Your task to perform on an android device: Go to eBay Image 0: 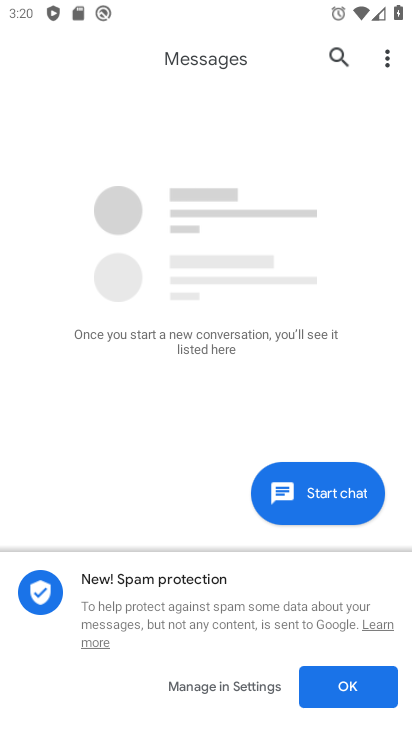
Step 0: press home button
Your task to perform on an android device: Go to eBay Image 1: 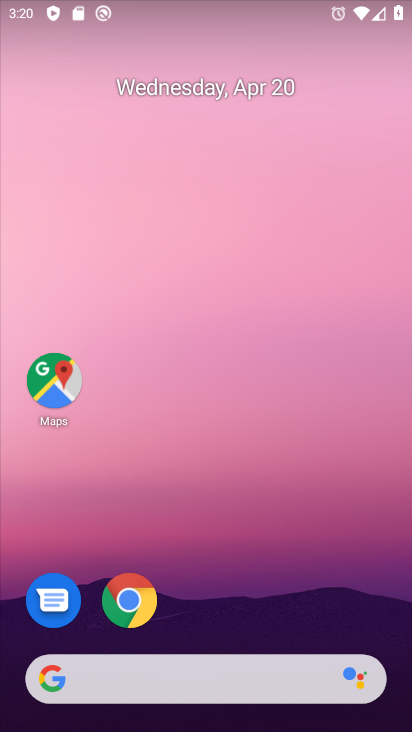
Step 1: drag from (218, 487) to (209, 199)
Your task to perform on an android device: Go to eBay Image 2: 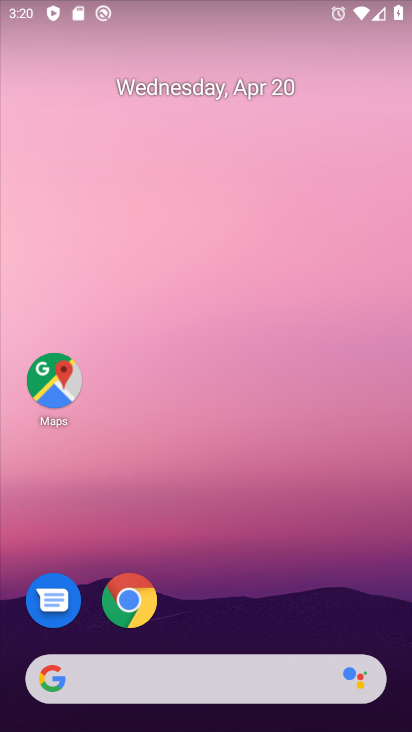
Step 2: drag from (266, 560) to (271, 154)
Your task to perform on an android device: Go to eBay Image 3: 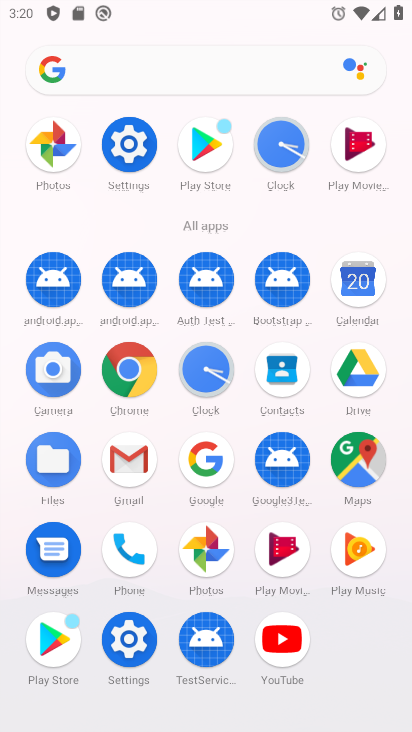
Step 3: click (127, 363)
Your task to perform on an android device: Go to eBay Image 4: 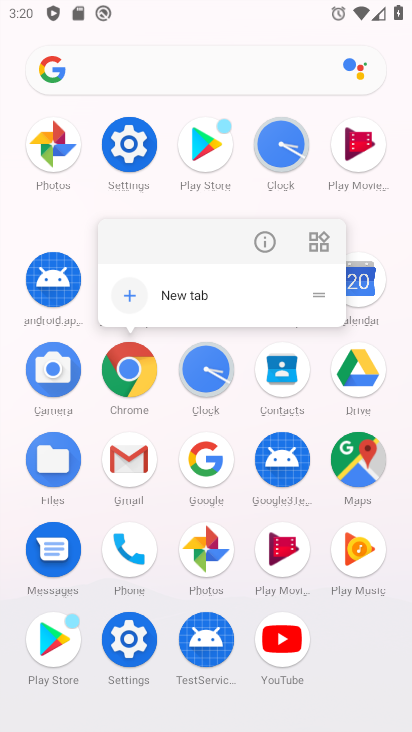
Step 4: click (128, 363)
Your task to perform on an android device: Go to eBay Image 5: 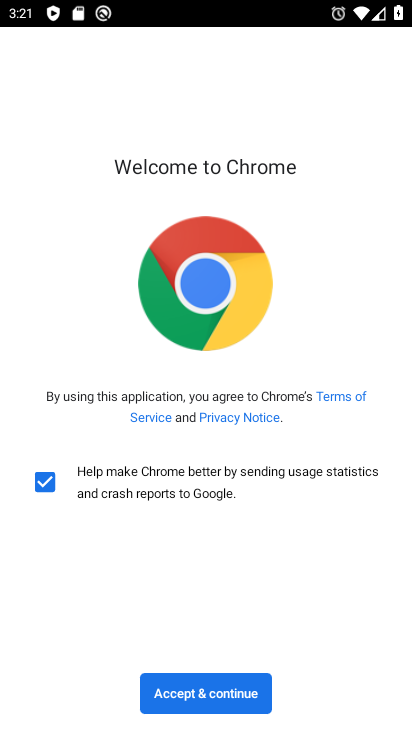
Step 5: click (205, 682)
Your task to perform on an android device: Go to eBay Image 6: 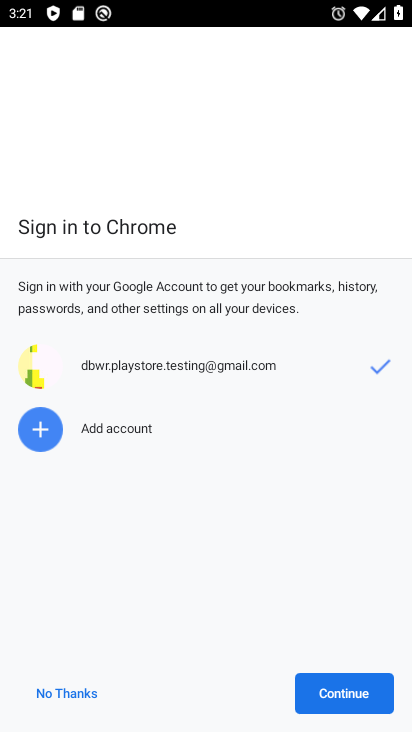
Step 6: click (205, 682)
Your task to perform on an android device: Go to eBay Image 7: 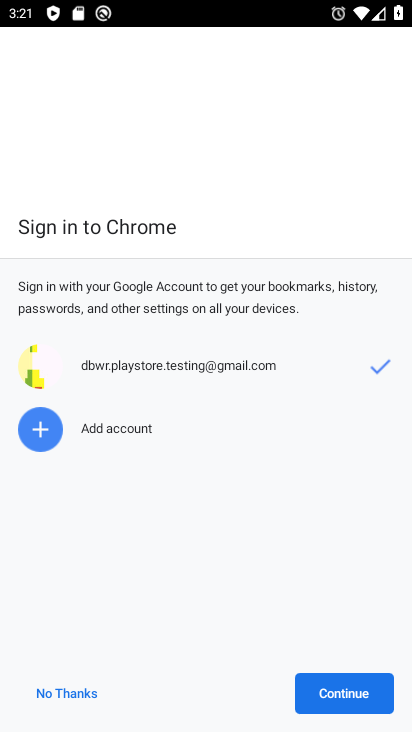
Step 7: click (336, 697)
Your task to perform on an android device: Go to eBay Image 8: 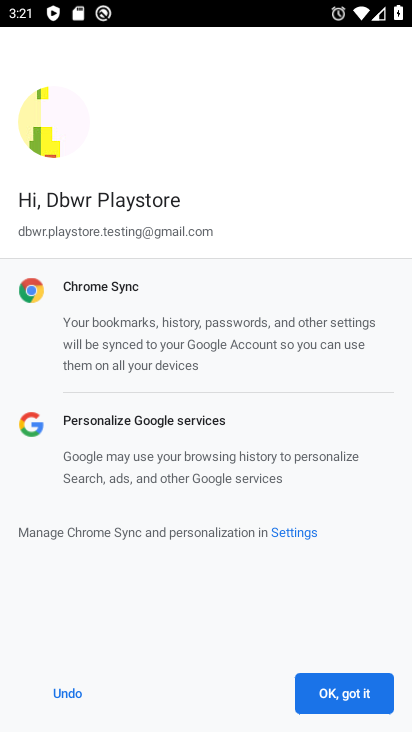
Step 8: click (336, 697)
Your task to perform on an android device: Go to eBay Image 9: 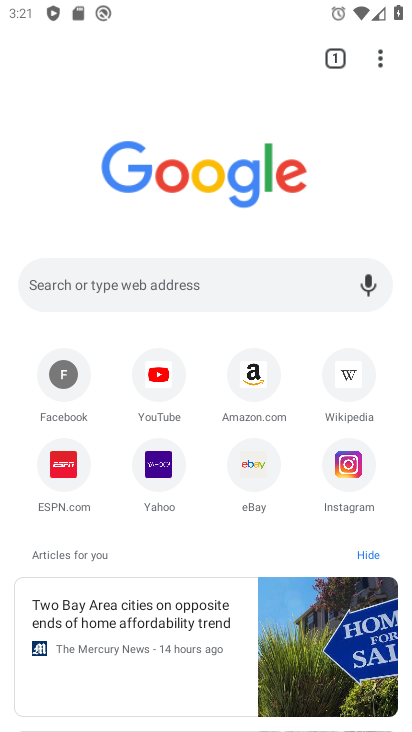
Step 9: click (247, 273)
Your task to perform on an android device: Go to eBay Image 10: 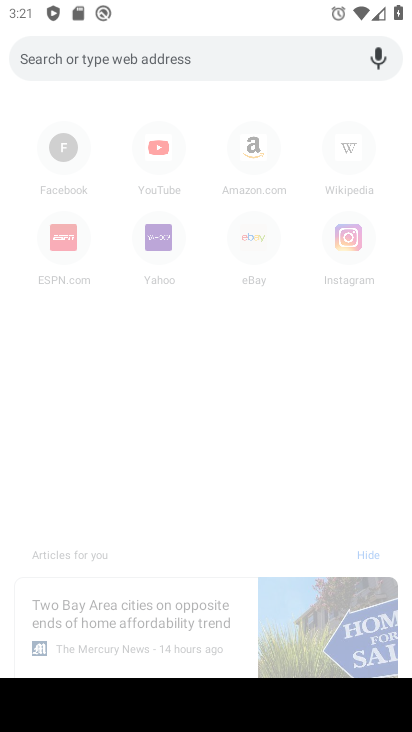
Step 10: type "eBay"
Your task to perform on an android device: Go to eBay Image 11: 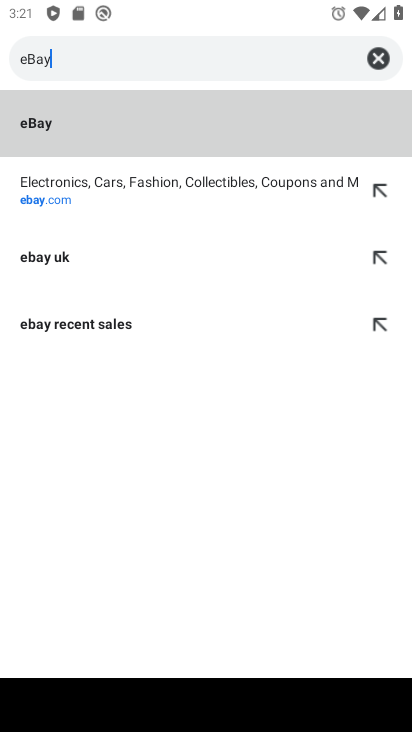
Step 11: click (215, 130)
Your task to perform on an android device: Go to eBay Image 12: 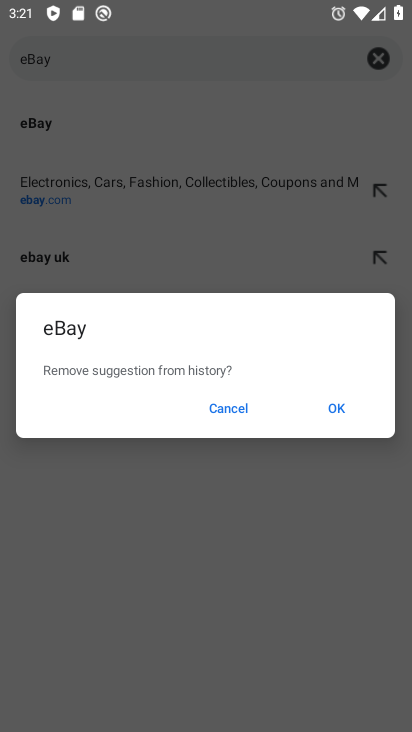
Step 12: click (331, 412)
Your task to perform on an android device: Go to eBay Image 13: 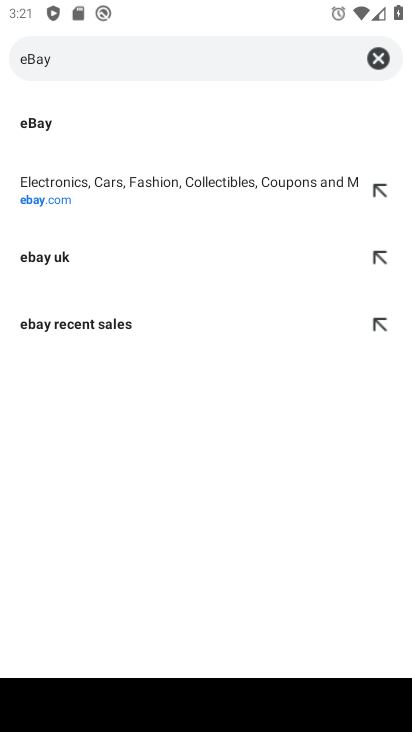
Step 13: click (122, 198)
Your task to perform on an android device: Go to eBay Image 14: 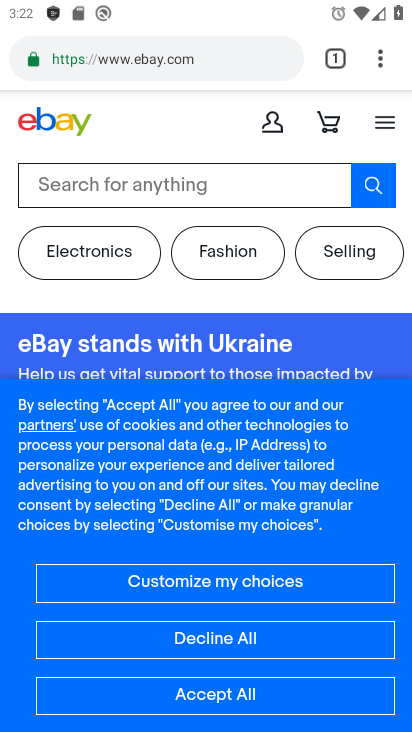
Step 14: task complete